Your task to perform on an android device: turn on translation in the chrome app Image 0: 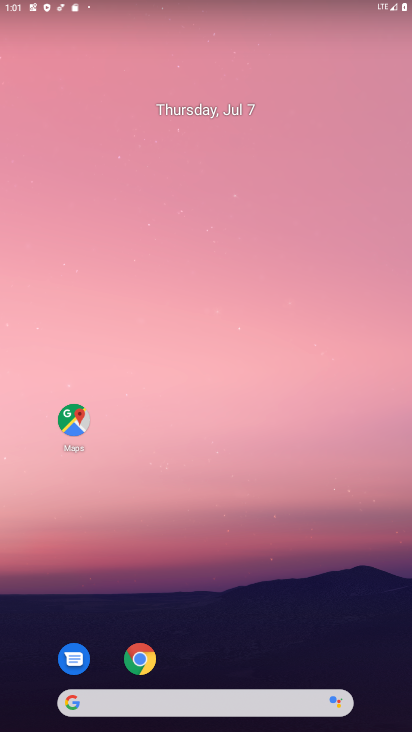
Step 0: click (139, 665)
Your task to perform on an android device: turn on translation in the chrome app Image 1: 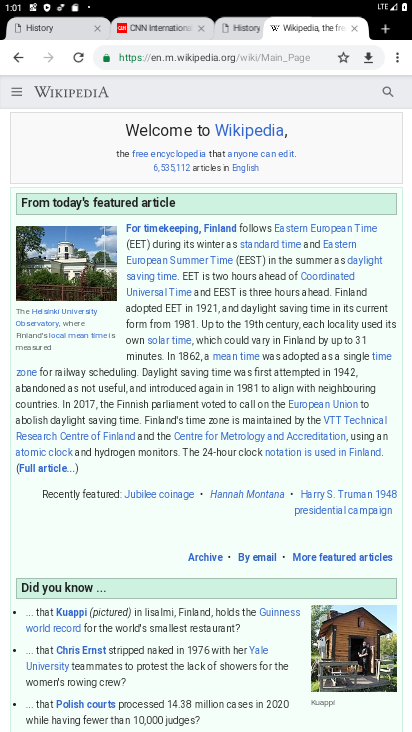
Step 1: click (395, 52)
Your task to perform on an android device: turn on translation in the chrome app Image 2: 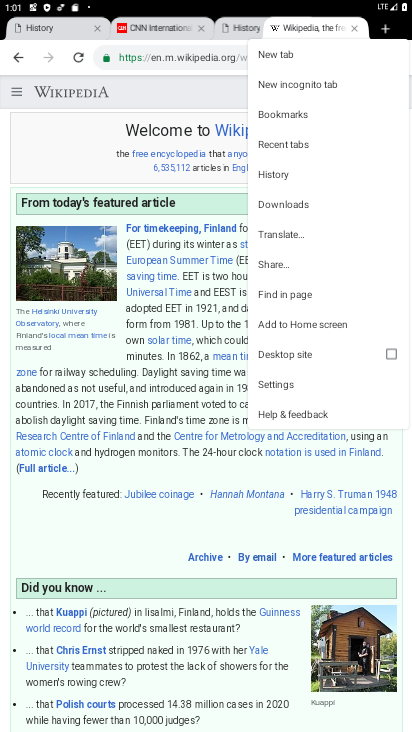
Step 2: click (288, 382)
Your task to perform on an android device: turn on translation in the chrome app Image 3: 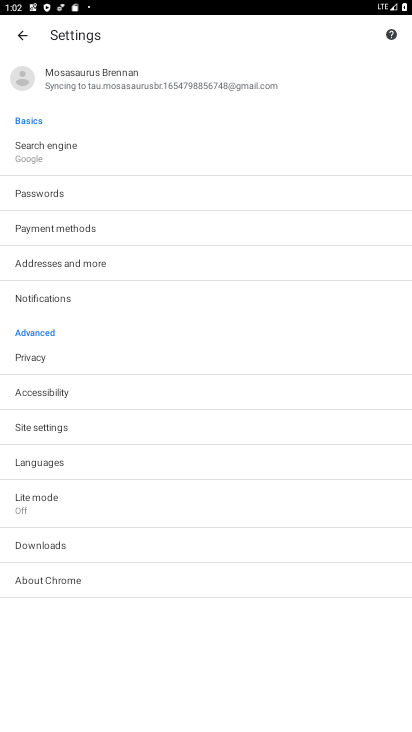
Step 3: click (65, 459)
Your task to perform on an android device: turn on translation in the chrome app Image 4: 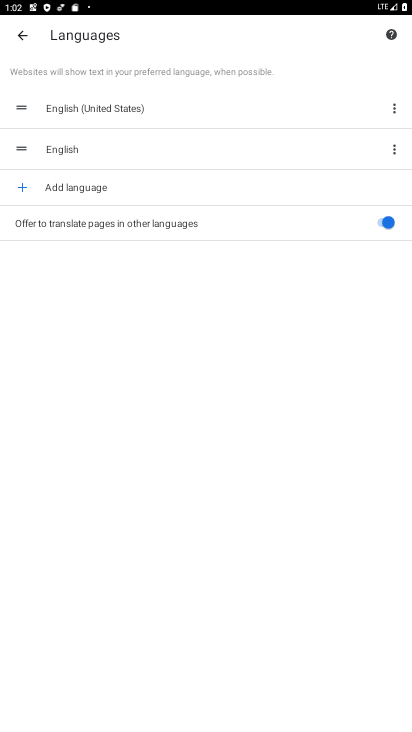
Step 4: task complete